Your task to perform on an android device: add a contact in the contacts app Image 0: 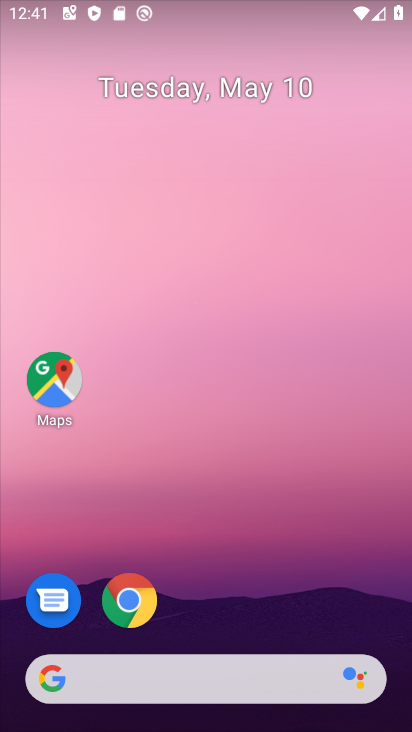
Step 0: drag from (211, 665) to (125, 268)
Your task to perform on an android device: add a contact in the contacts app Image 1: 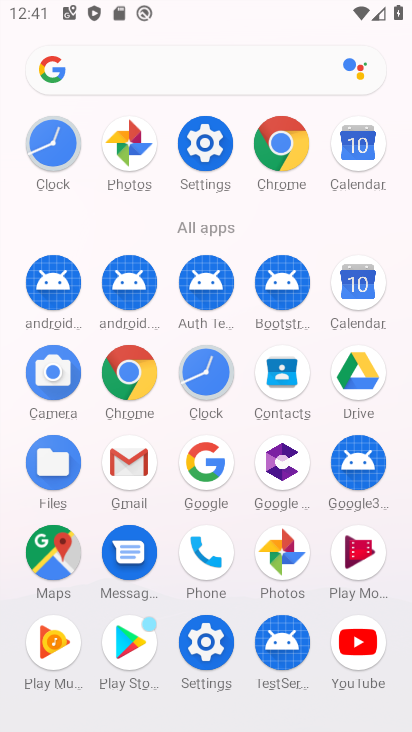
Step 1: click (289, 367)
Your task to perform on an android device: add a contact in the contacts app Image 2: 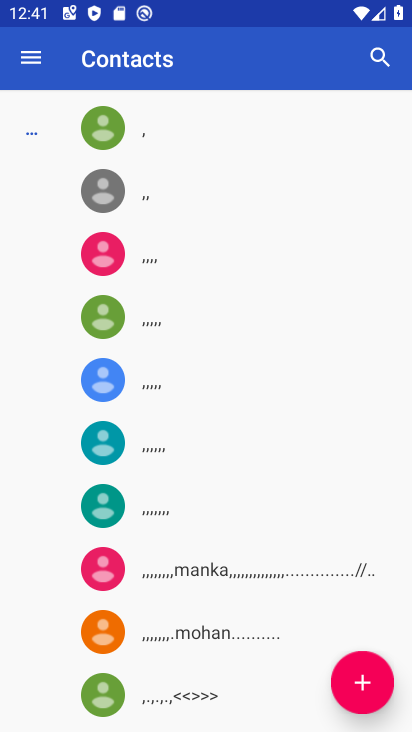
Step 2: click (369, 684)
Your task to perform on an android device: add a contact in the contacts app Image 3: 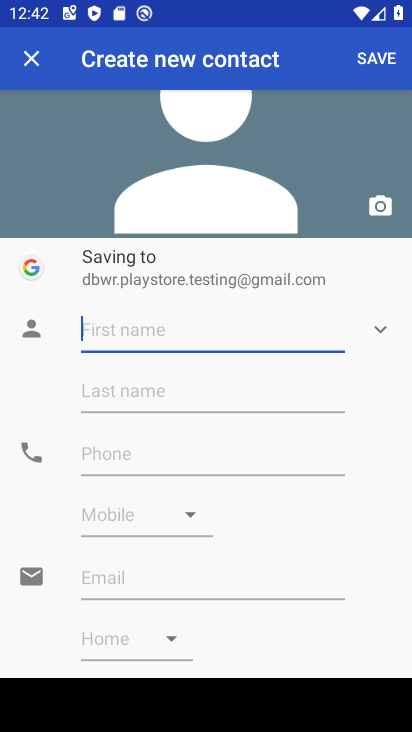
Step 3: type "hdskhf"
Your task to perform on an android device: add a contact in the contacts app Image 4: 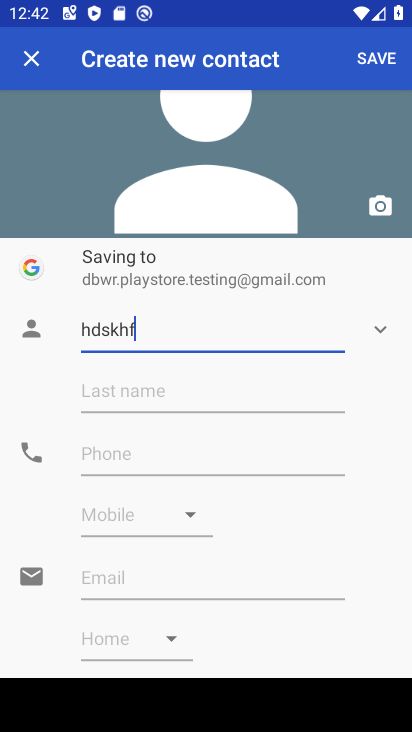
Step 4: click (144, 465)
Your task to perform on an android device: add a contact in the contacts app Image 5: 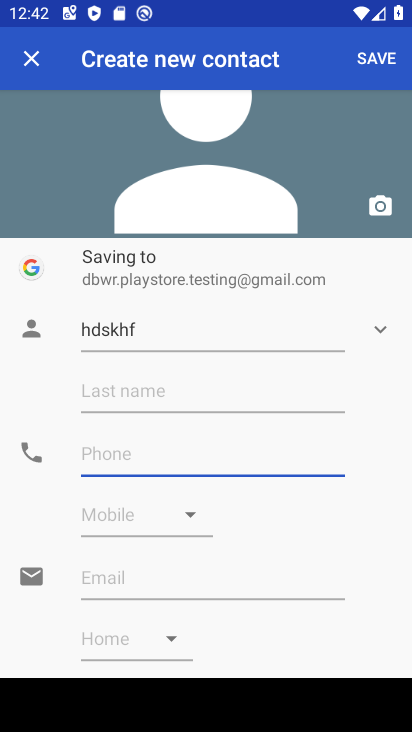
Step 5: type "0942352"
Your task to perform on an android device: add a contact in the contacts app Image 6: 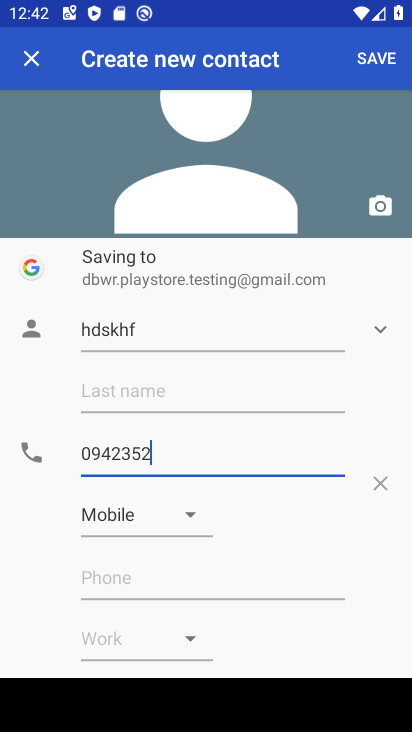
Step 6: click (380, 57)
Your task to perform on an android device: add a contact in the contacts app Image 7: 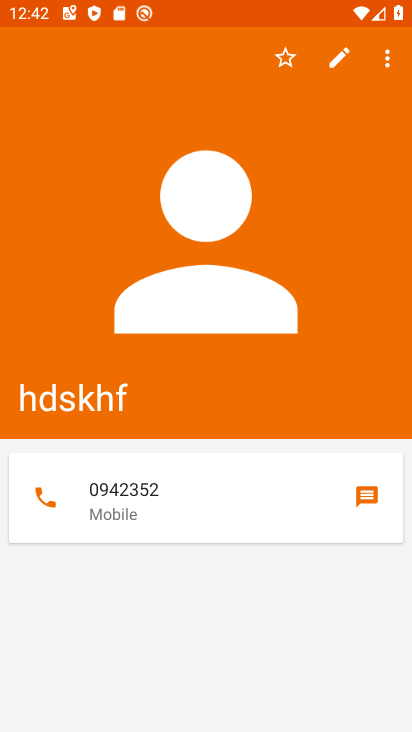
Step 7: task complete